Your task to perform on an android device: find which apps use the phone's location Image 0: 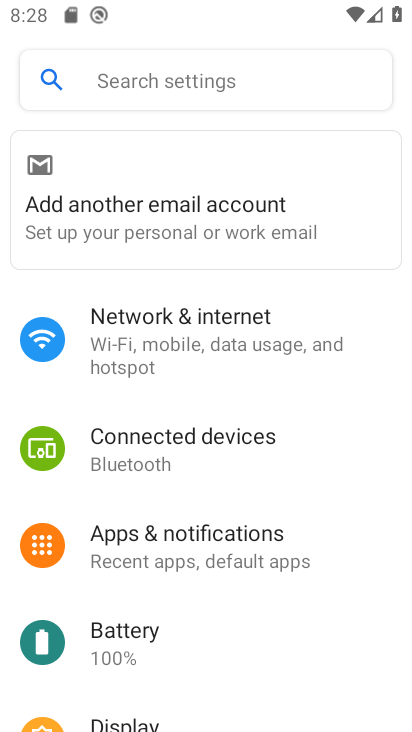
Step 0: press home button
Your task to perform on an android device: find which apps use the phone's location Image 1: 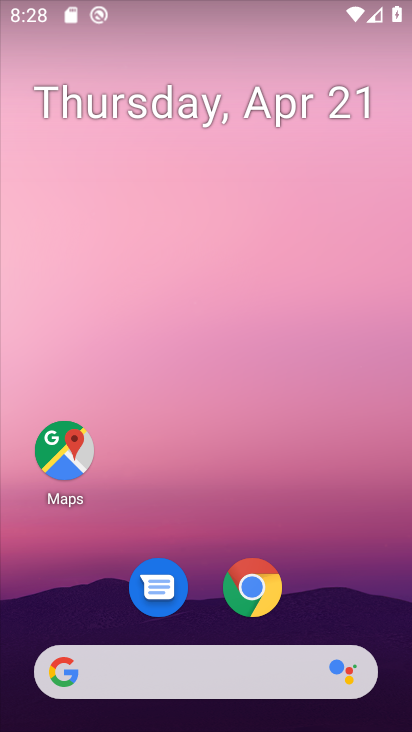
Step 1: drag from (380, 647) to (321, 52)
Your task to perform on an android device: find which apps use the phone's location Image 2: 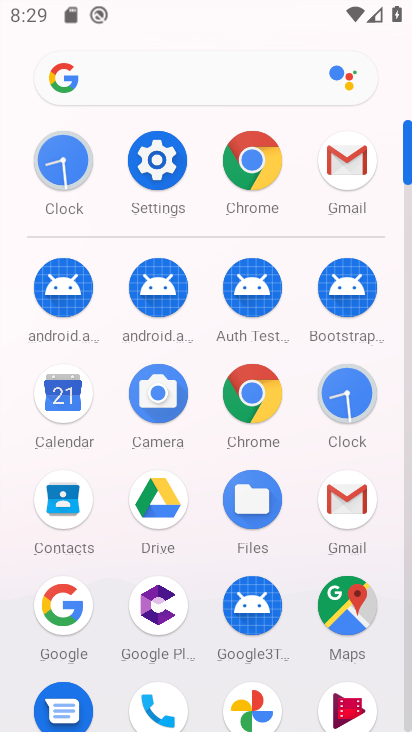
Step 2: click (152, 158)
Your task to perform on an android device: find which apps use the phone's location Image 3: 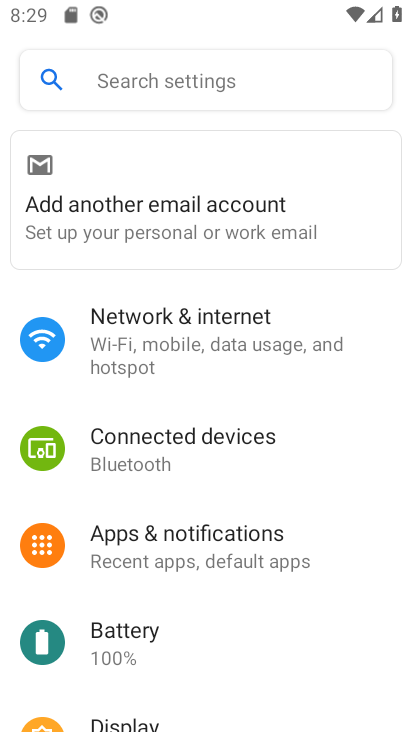
Step 3: drag from (336, 563) to (319, 405)
Your task to perform on an android device: find which apps use the phone's location Image 4: 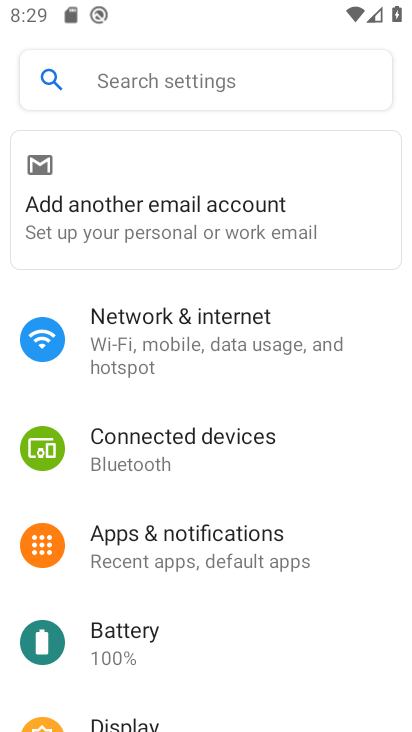
Step 4: drag from (368, 326) to (361, 250)
Your task to perform on an android device: find which apps use the phone's location Image 5: 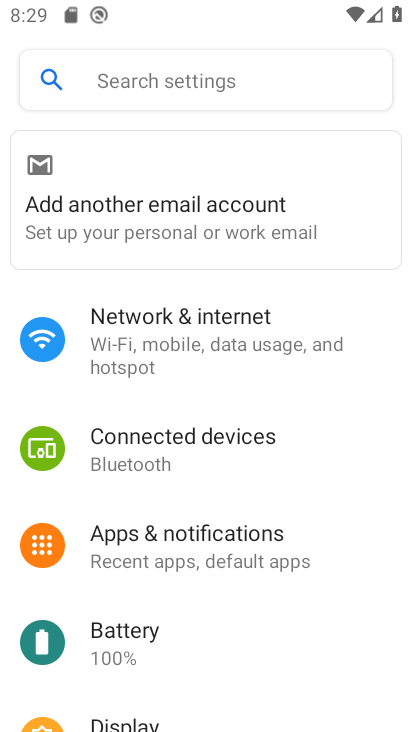
Step 5: drag from (374, 596) to (376, 323)
Your task to perform on an android device: find which apps use the phone's location Image 6: 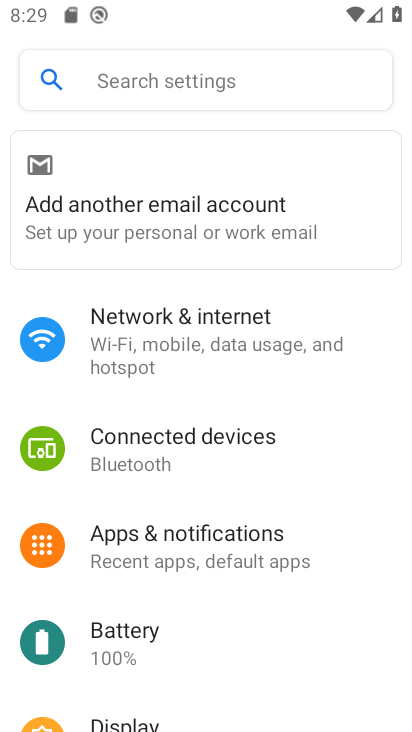
Step 6: drag from (393, 680) to (386, 317)
Your task to perform on an android device: find which apps use the phone's location Image 7: 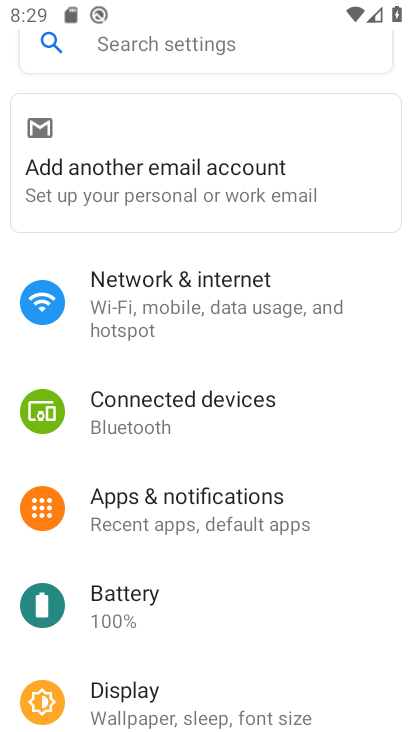
Step 7: drag from (348, 405) to (326, 177)
Your task to perform on an android device: find which apps use the phone's location Image 8: 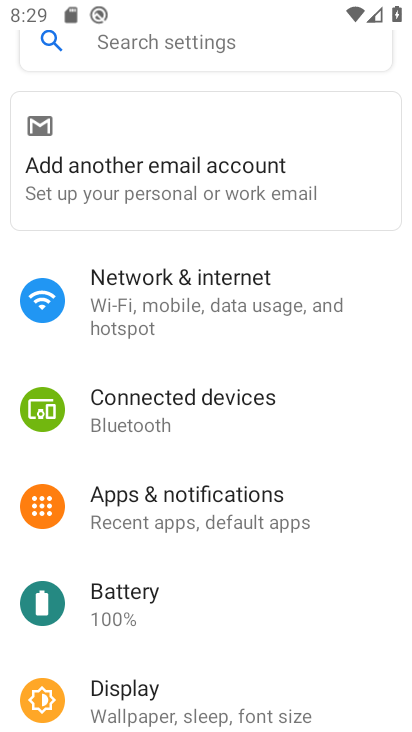
Step 8: drag from (391, 713) to (376, 218)
Your task to perform on an android device: find which apps use the phone's location Image 9: 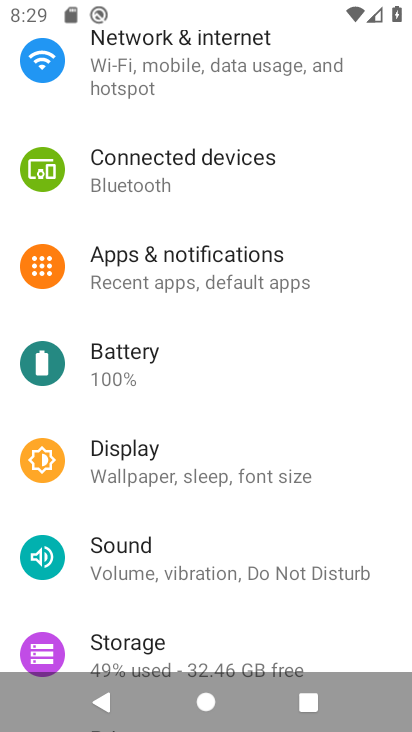
Step 9: drag from (392, 656) to (411, 183)
Your task to perform on an android device: find which apps use the phone's location Image 10: 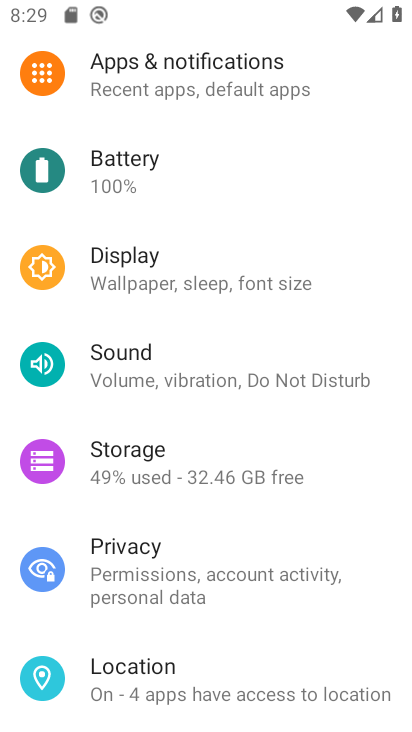
Step 10: drag from (391, 696) to (403, 248)
Your task to perform on an android device: find which apps use the phone's location Image 11: 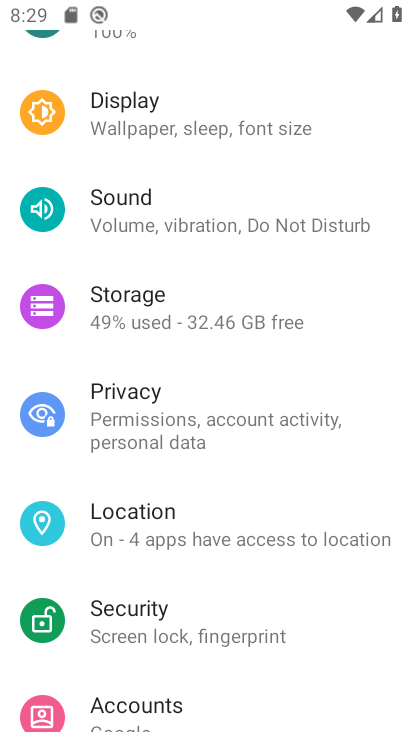
Step 11: click (145, 524)
Your task to perform on an android device: find which apps use the phone's location Image 12: 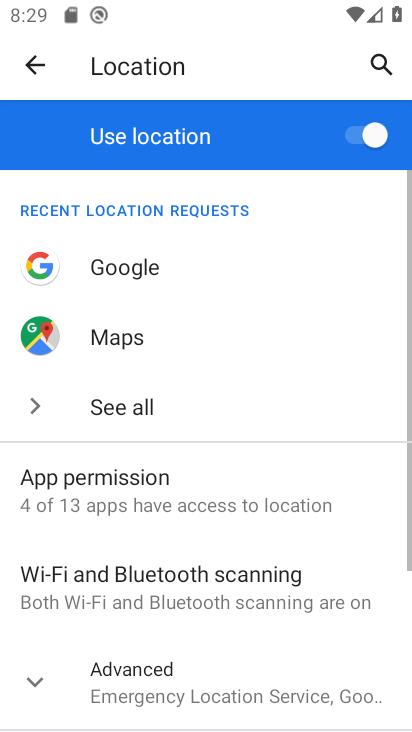
Step 12: click (83, 485)
Your task to perform on an android device: find which apps use the phone's location Image 13: 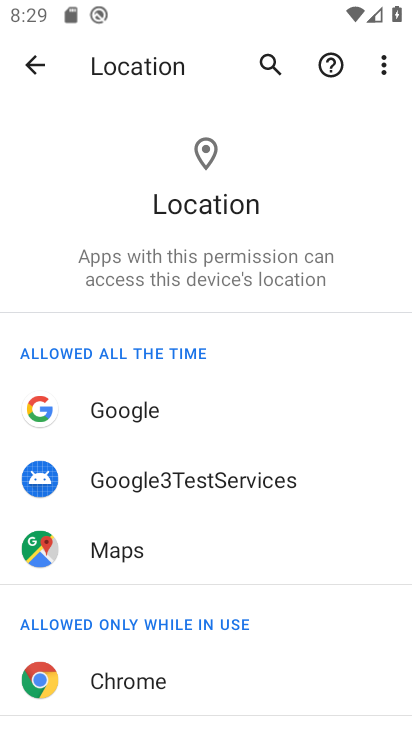
Step 13: task complete